Your task to perform on an android device: uninstall "TextNow: Call + Text Unlimited" Image 0: 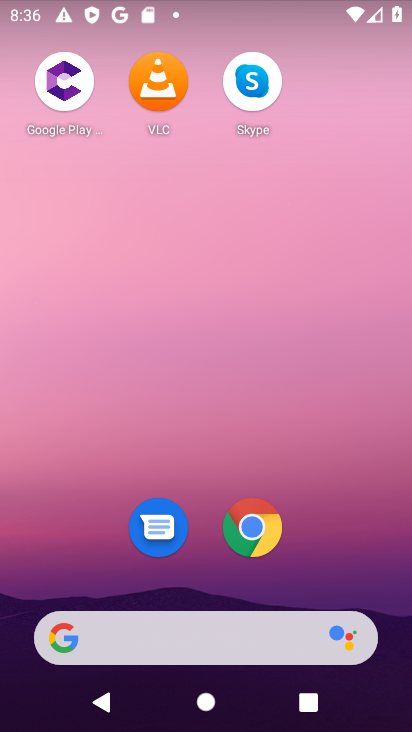
Step 0: click (222, 645)
Your task to perform on an android device: uninstall "TextNow: Call + Text Unlimited" Image 1: 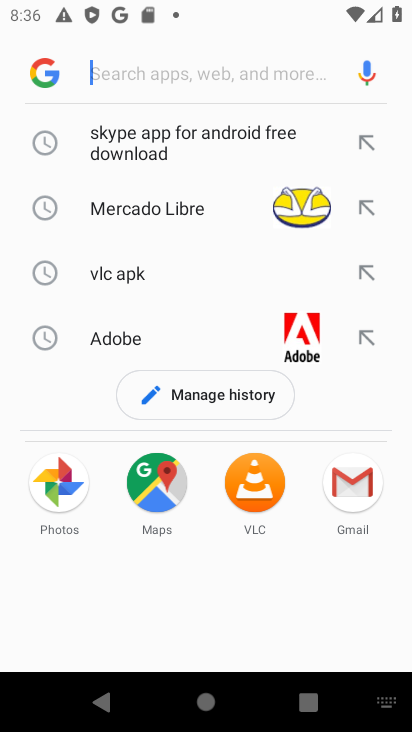
Step 1: type "textnow"
Your task to perform on an android device: uninstall "TextNow: Call + Text Unlimited" Image 2: 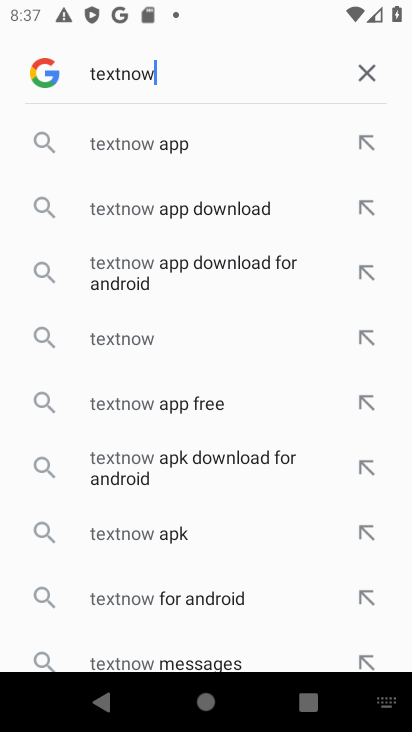
Step 2: click (361, 143)
Your task to perform on an android device: uninstall "TextNow: Call + Text Unlimited" Image 3: 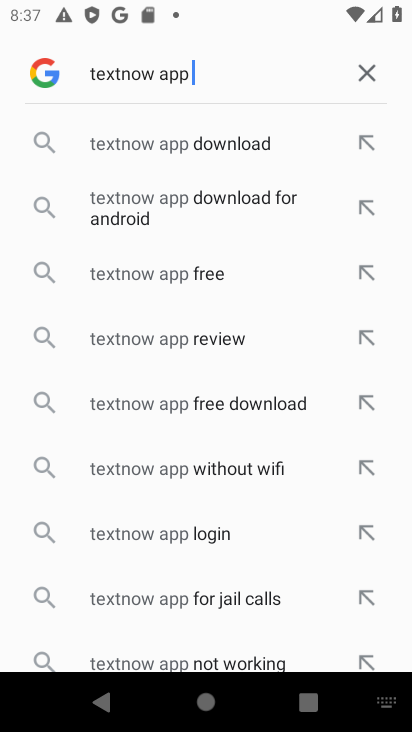
Step 3: click (234, 85)
Your task to perform on an android device: uninstall "TextNow: Call + Text Unlimited" Image 4: 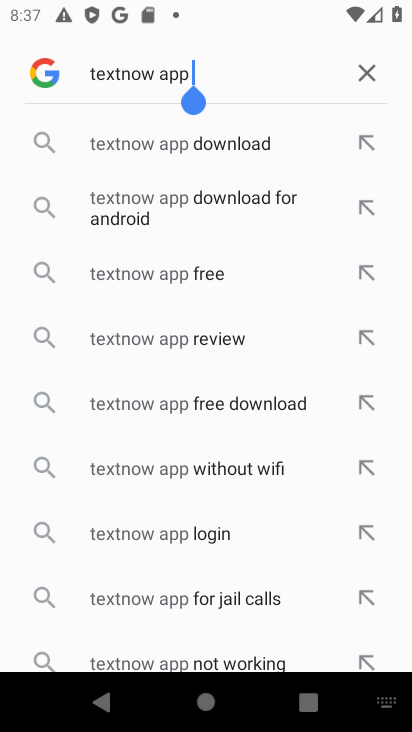
Step 4: click (234, 75)
Your task to perform on an android device: uninstall "TextNow: Call + Text Unlimited" Image 5: 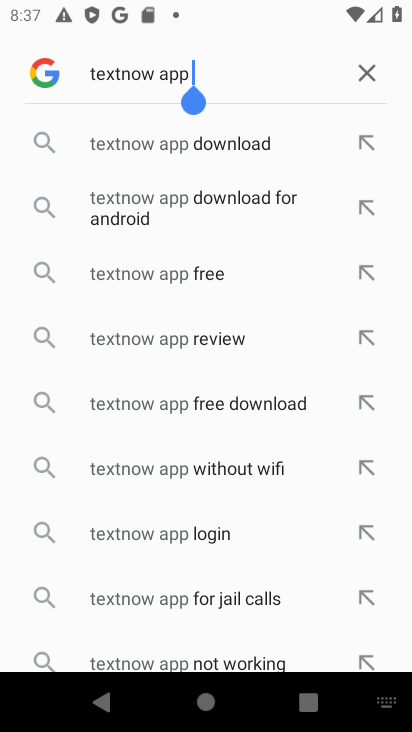
Step 5: click (234, 75)
Your task to perform on an android device: uninstall "TextNow: Call + Text Unlimited" Image 6: 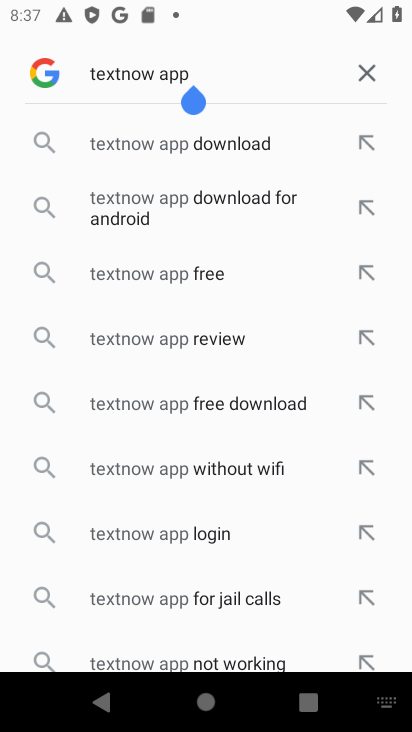
Step 6: click (232, 152)
Your task to perform on an android device: uninstall "TextNow: Call + Text Unlimited" Image 7: 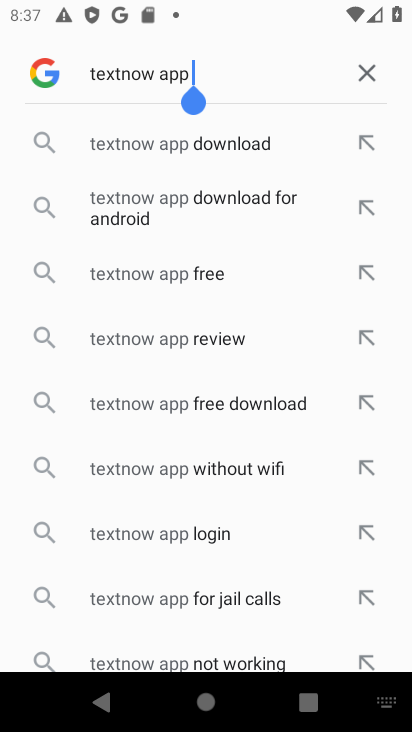
Step 7: click (232, 152)
Your task to perform on an android device: uninstall "TextNow: Call + Text Unlimited" Image 8: 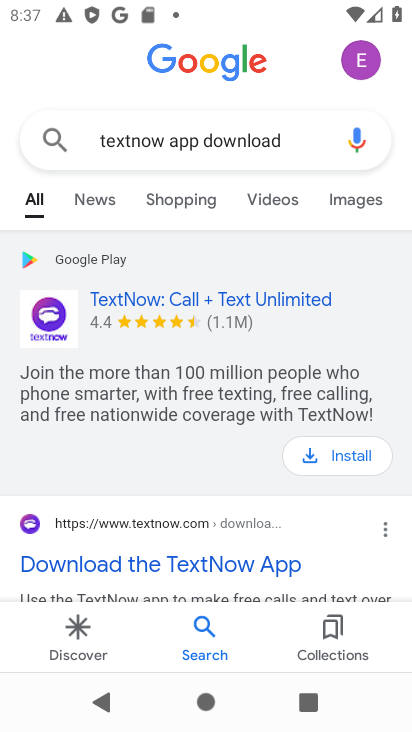
Step 8: click (361, 469)
Your task to perform on an android device: uninstall "TextNow: Call + Text Unlimited" Image 9: 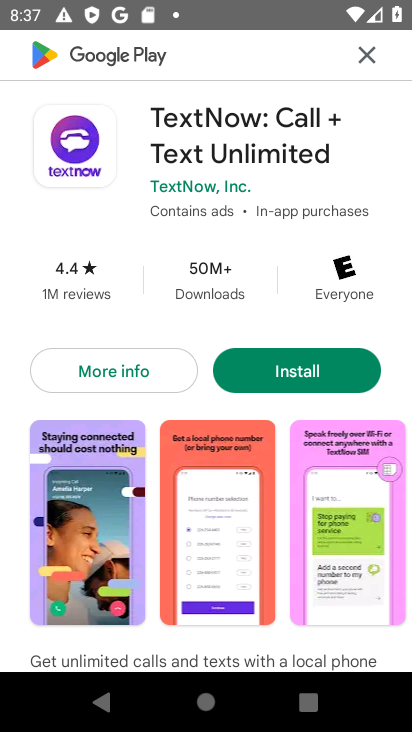
Step 9: click (331, 382)
Your task to perform on an android device: uninstall "TextNow: Call + Text Unlimited" Image 10: 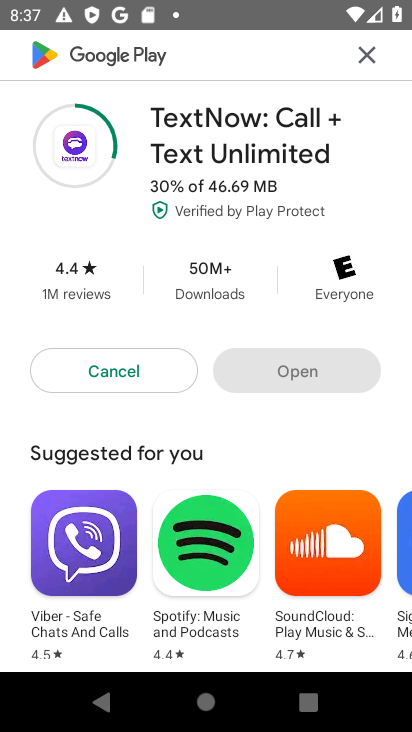
Step 10: task complete